Your task to perform on an android device: Open internet settings Image 0: 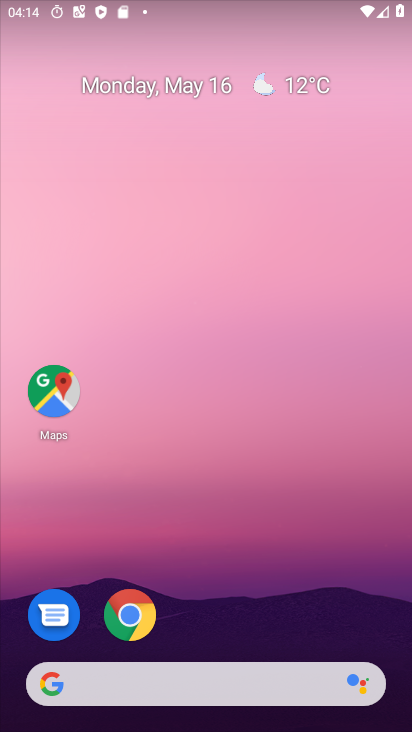
Step 0: drag from (329, 507) to (262, 128)
Your task to perform on an android device: Open internet settings Image 1: 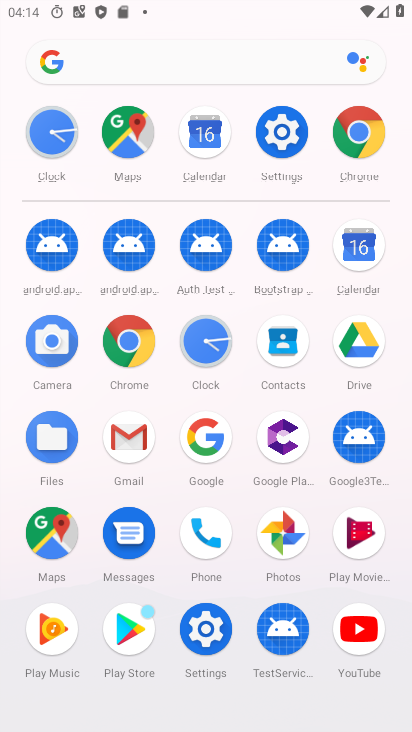
Step 1: click (275, 127)
Your task to perform on an android device: Open internet settings Image 2: 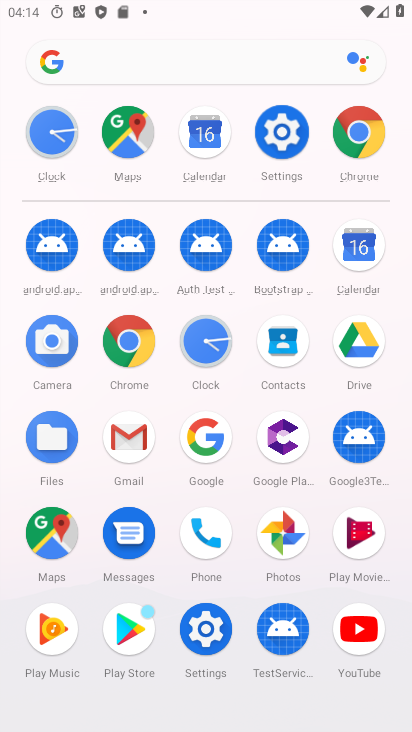
Step 2: click (276, 128)
Your task to perform on an android device: Open internet settings Image 3: 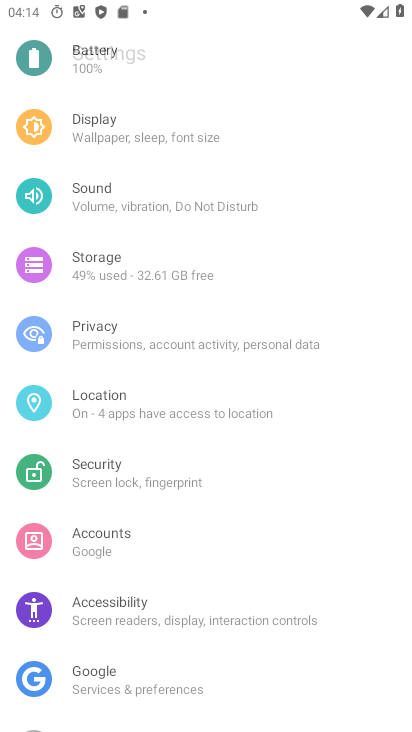
Step 3: click (276, 124)
Your task to perform on an android device: Open internet settings Image 4: 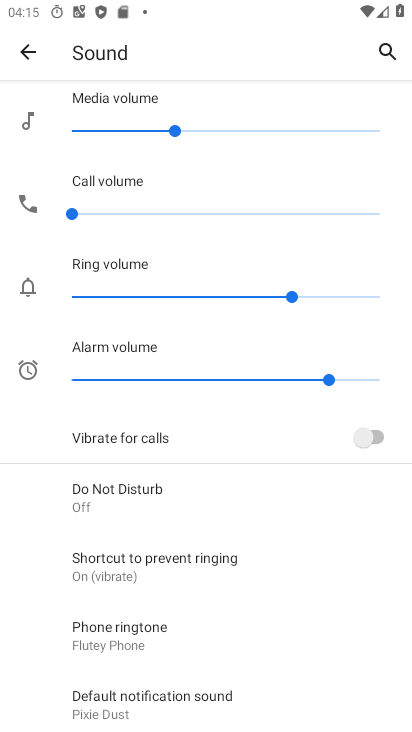
Step 4: click (17, 47)
Your task to perform on an android device: Open internet settings Image 5: 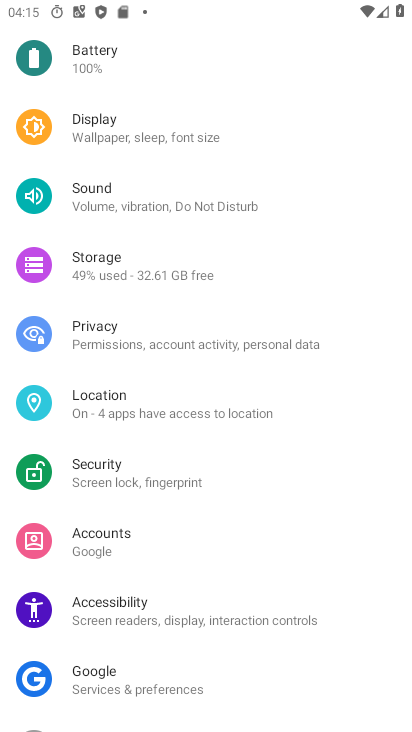
Step 5: drag from (152, 133) to (187, 616)
Your task to perform on an android device: Open internet settings Image 6: 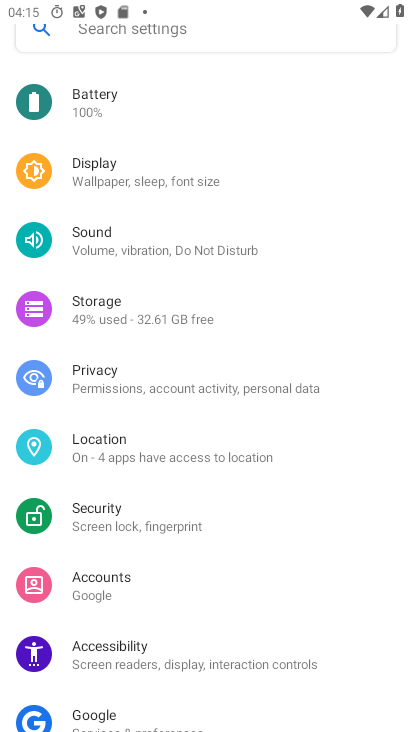
Step 6: drag from (158, 235) to (241, 652)
Your task to perform on an android device: Open internet settings Image 7: 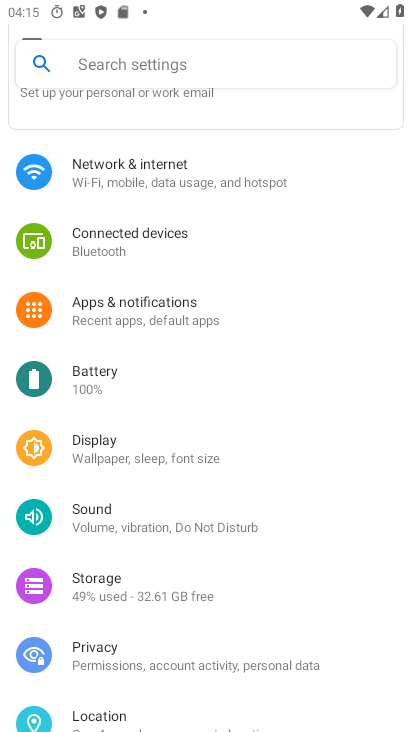
Step 7: drag from (249, 584) to (278, 520)
Your task to perform on an android device: Open internet settings Image 8: 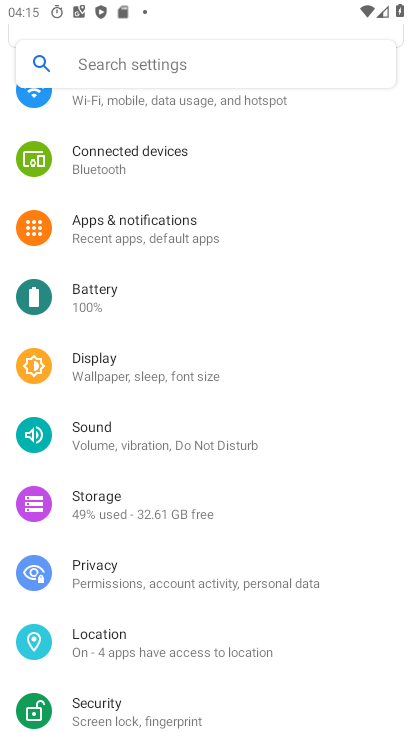
Step 8: drag from (252, 165) to (352, 652)
Your task to perform on an android device: Open internet settings Image 9: 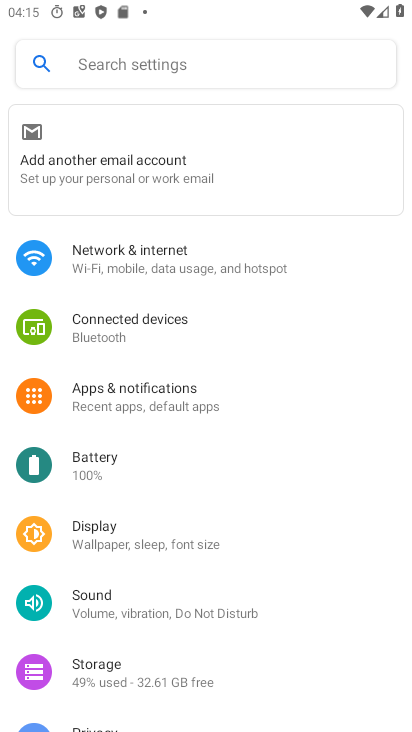
Step 9: click (132, 247)
Your task to perform on an android device: Open internet settings Image 10: 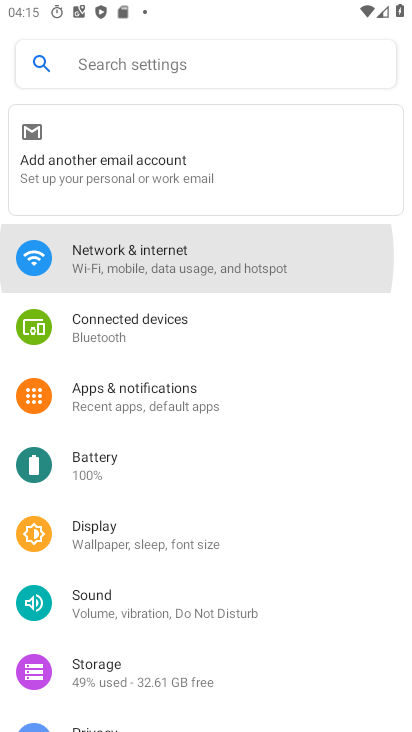
Step 10: click (131, 262)
Your task to perform on an android device: Open internet settings Image 11: 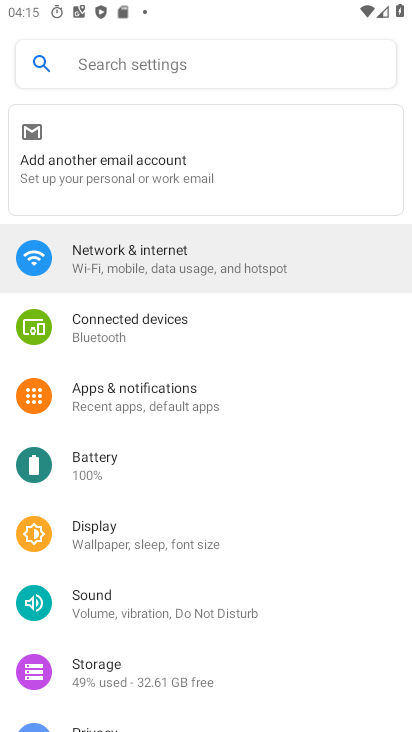
Step 11: click (132, 259)
Your task to perform on an android device: Open internet settings Image 12: 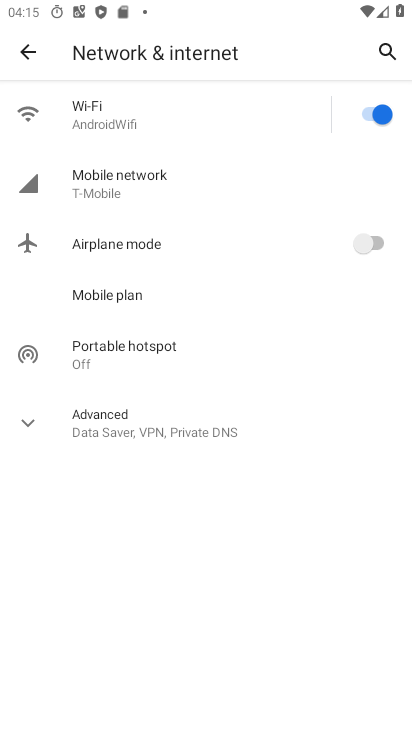
Step 12: task complete